Your task to perform on an android device: Open Android settings Image 0: 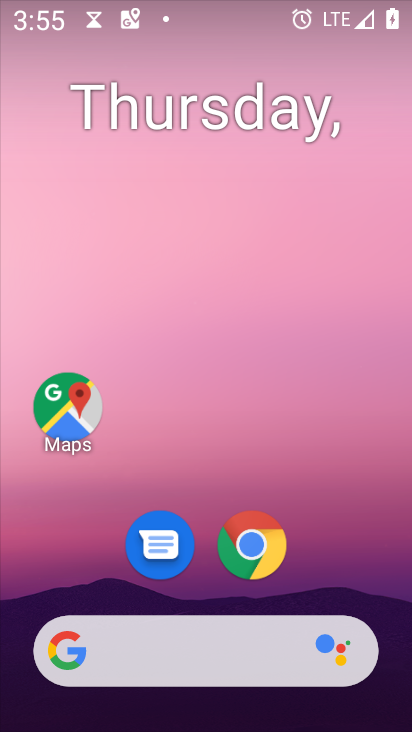
Step 0: drag from (389, 529) to (381, 60)
Your task to perform on an android device: Open Android settings Image 1: 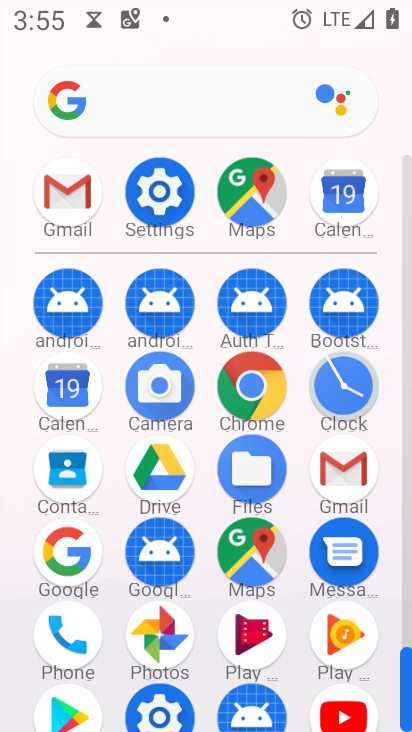
Step 1: click (154, 193)
Your task to perform on an android device: Open Android settings Image 2: 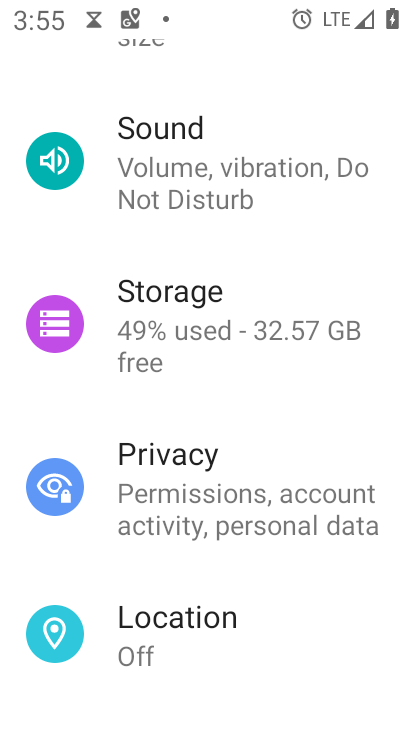
Step 2: drag from (186, 597) to (237, 182)
Your task to perform on an android device: Open Android settings Image 3: 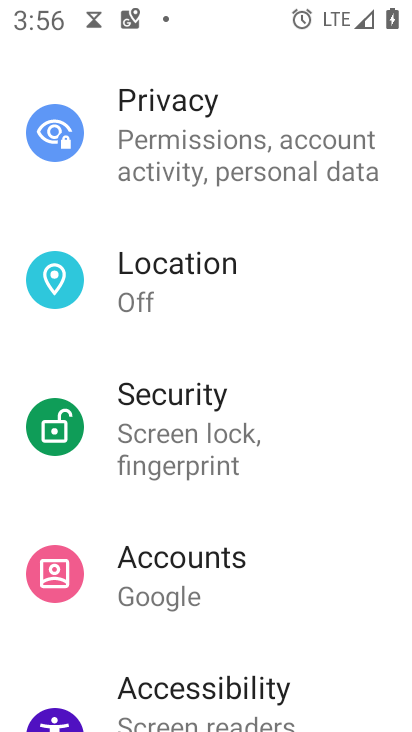
Step 3: drag from (265, 616) to (284, 200)
Your task to perform on an android device: Open Android settings Image 4: 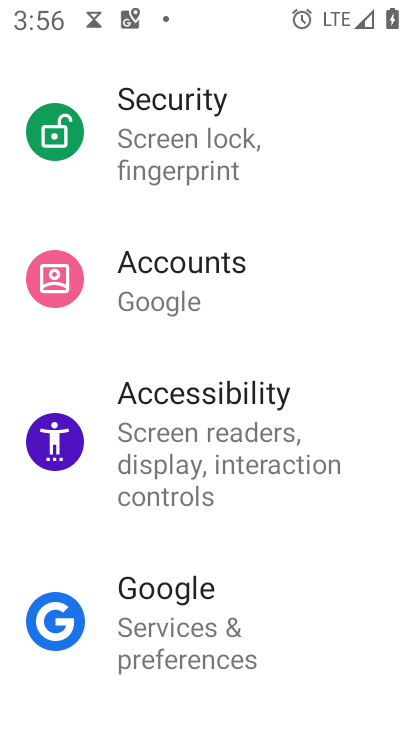
Step 4: drag from (231, 619) to (313, 195)
Your task to perform on an android device: Open Android settings Image 5: 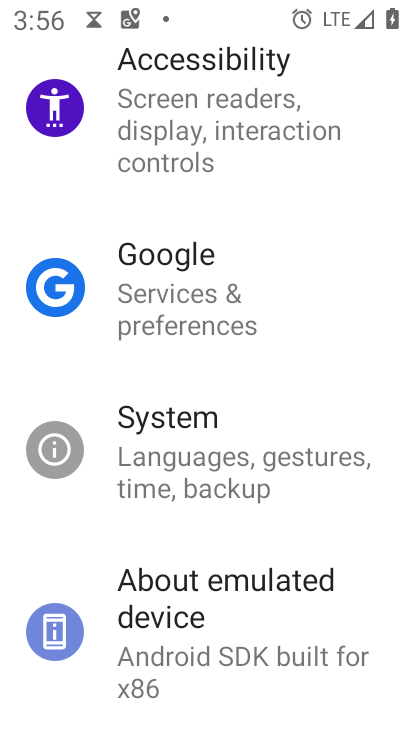
Step 5: drag from (238, 681) to (312, 268)
Your task to perform on an android device: Open Android settings Image 6: 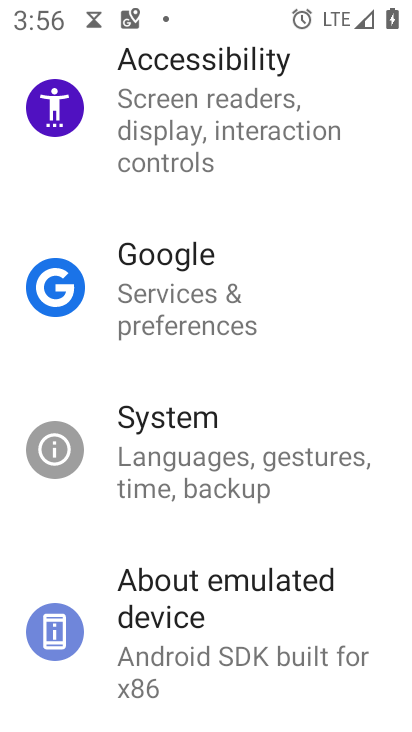
Step 6: click (238, 619)
Your task to perform on an android device: Open Android settings Image 7: 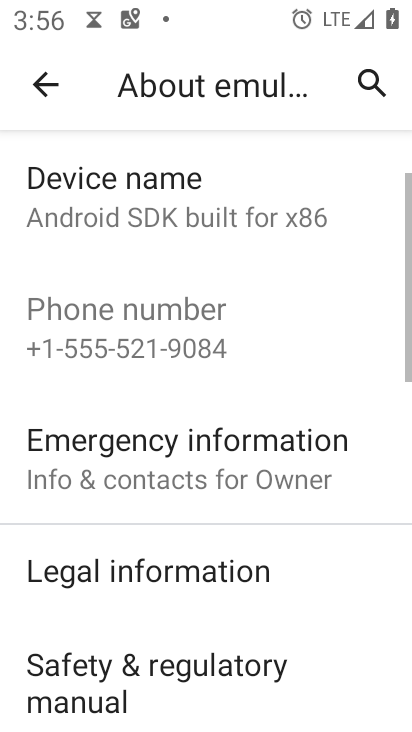
Step 7: drag from (203, 687) to (283, 112)
Your task to perform on an android device: Open Android settings Image 8: 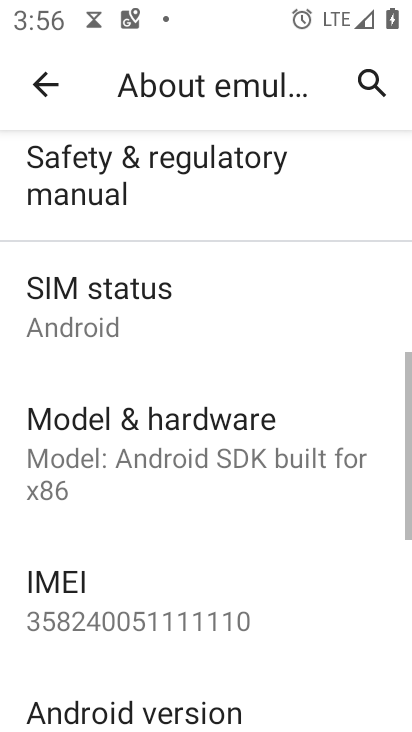
Step 8: drag from (240, 559) to (247, 323)
Your task to perform on an android device: Open Android settings Image 9: 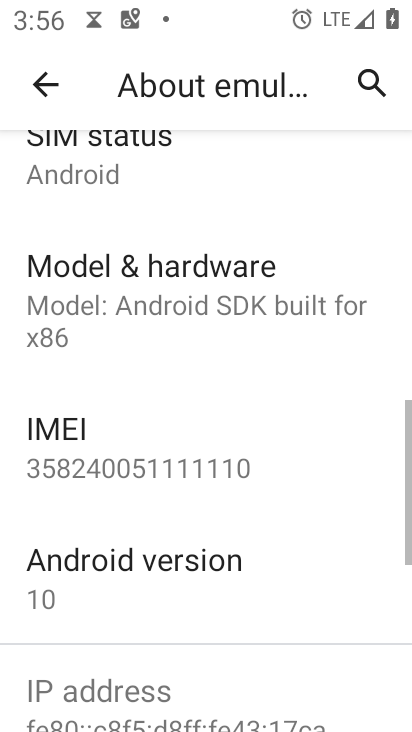
Step 9: drag from (202, 667) to (267, 286)
Your task to perform on an android device: Open Android settings Image 10: 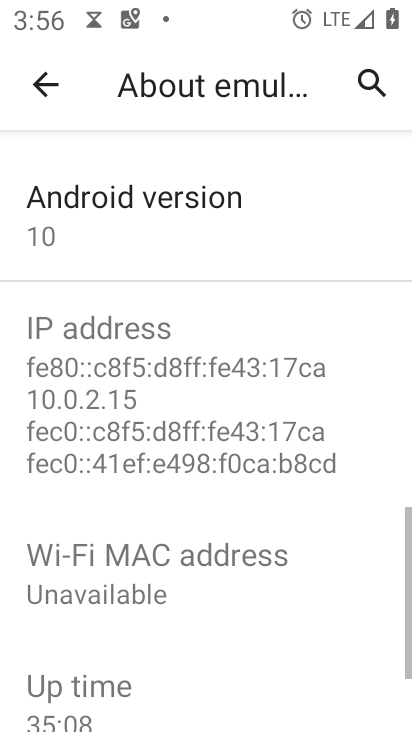
Step 10: click (34, 244)
Your task to perform on an android device: Open Android settings Image 11: 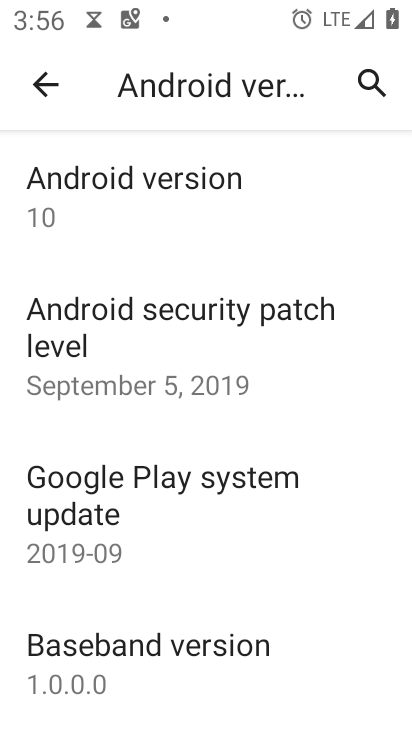
Step 11: click (55, 205)
Your task to perform on an android device: Open Android settings Image 12: 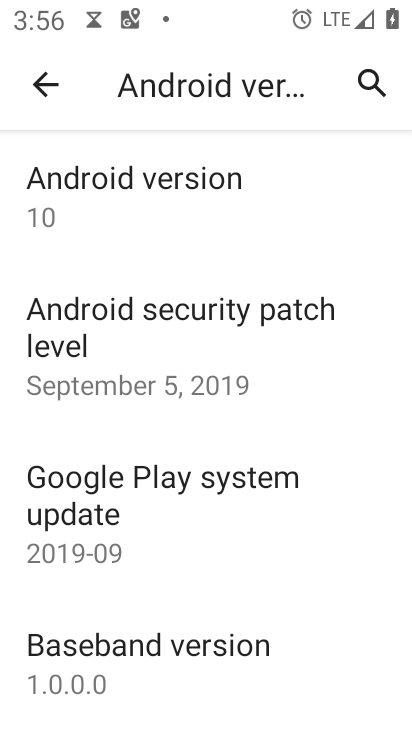
Step 12: task complete